Your task to perform on an android device: When is my next appointment? Image 0: 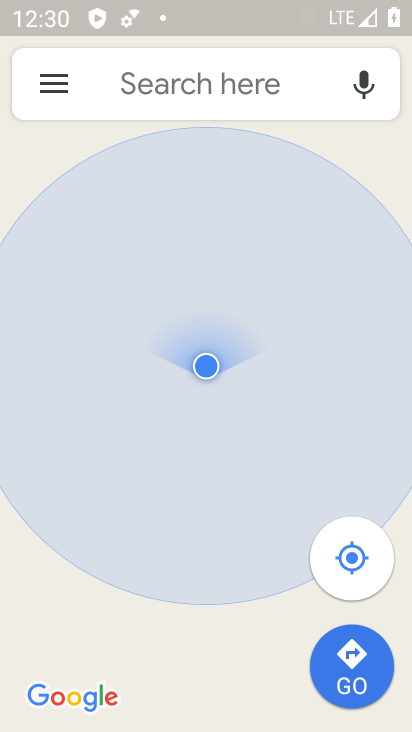
Step 0: press home button
Your task to perform on an android device: When is my next appointment? Image 1: 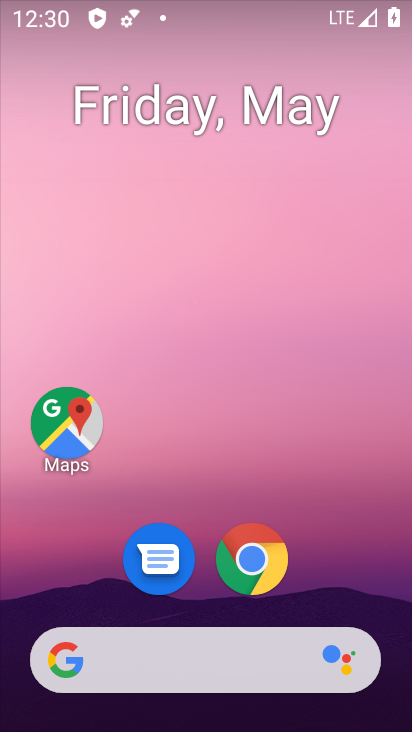
Step 1: drag from (374, 433) to (353, 140)
Your task to perform on an android device: When is my next appointment? Image 2: 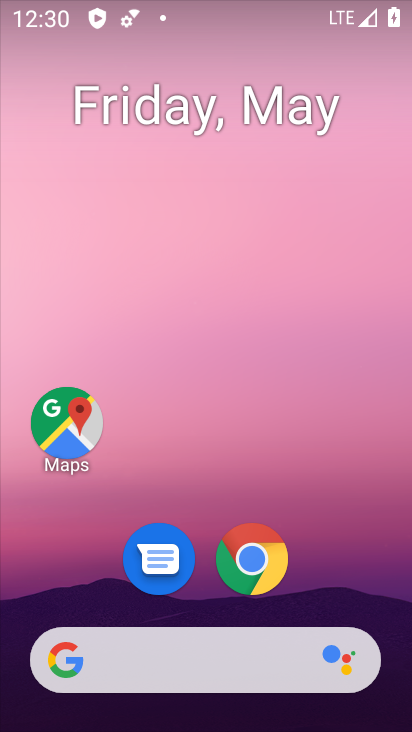
Step 2: drag from (372, 539) to (350, 117)
Your task to perform on an android device: When is my next appointment? Image 3: 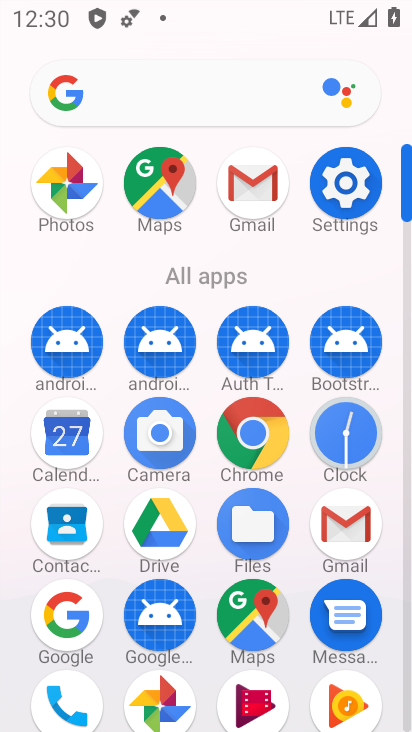
Step 3: click (74, 432)
Your task to perform on an android device: When is my next appointment? Image 4: 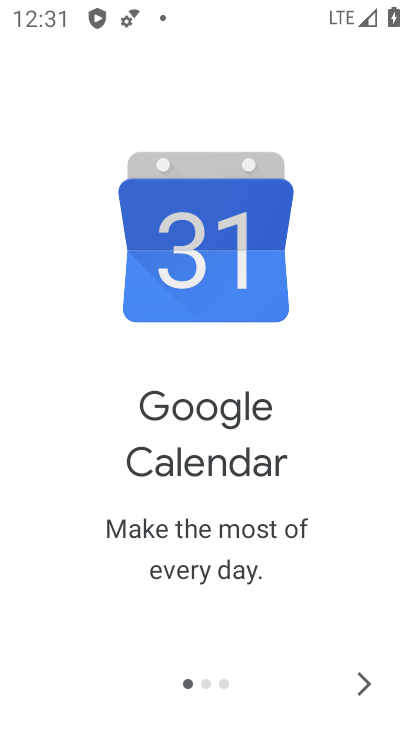
Step 4: click (356, 688)
Your task to perform on an android device: When is my next appointment? Image 5: 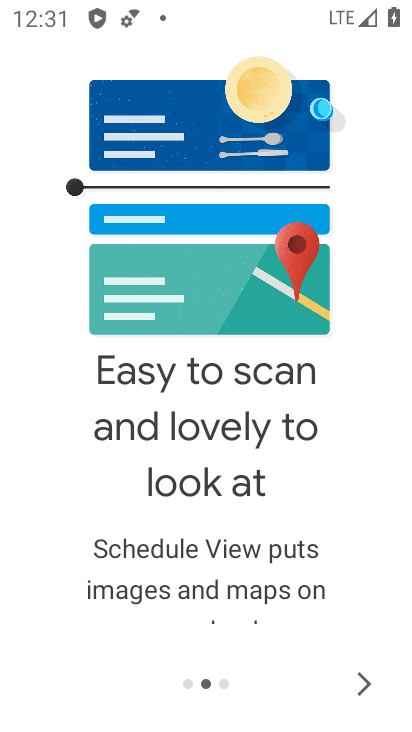
Step 5: click (356, 688)
Your task to perform on an android device: When is my next appointment? Image 6: 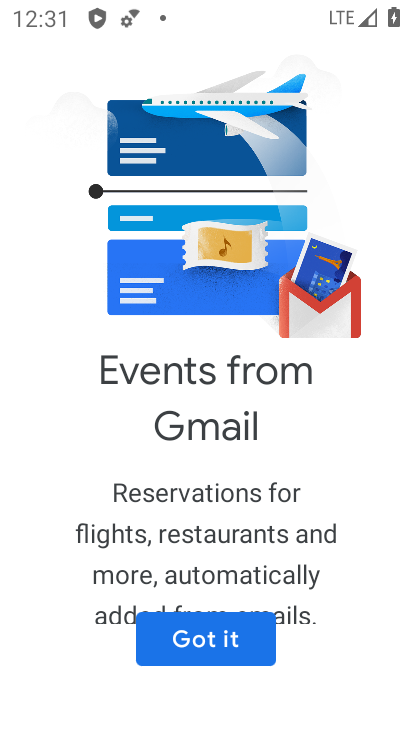
Step 6: click (259, 656)
Your task to perform on an android device: When is my next appointment? Image 7: 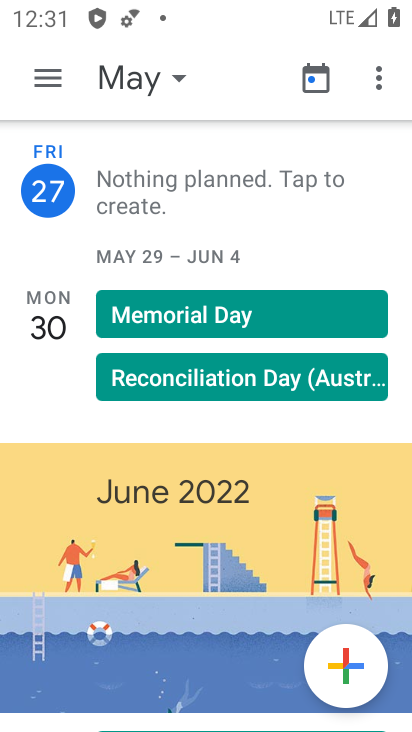
Step 7: task complete